Your task to perform on an android device: Open settings Image 0: 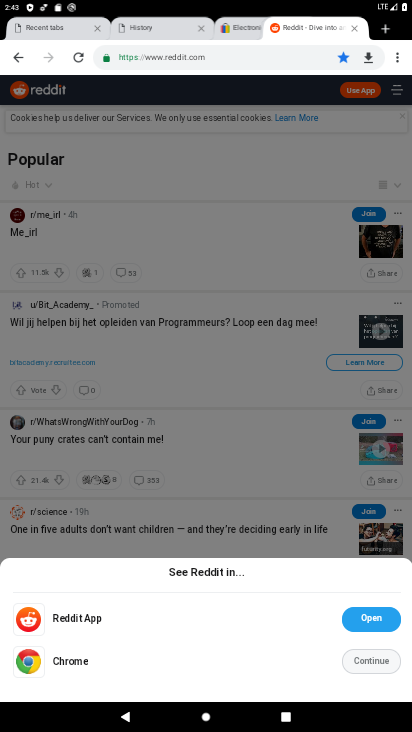
Step 0: press home button
Your task to perform on an android device: Open settings Image 1: 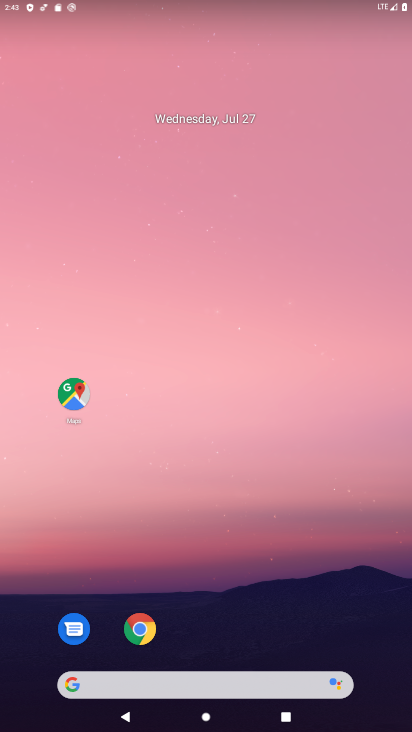
Step 1: drag from (199, 655) to (212, 198)
Your task to perform on an android device: Open settings Image 2: 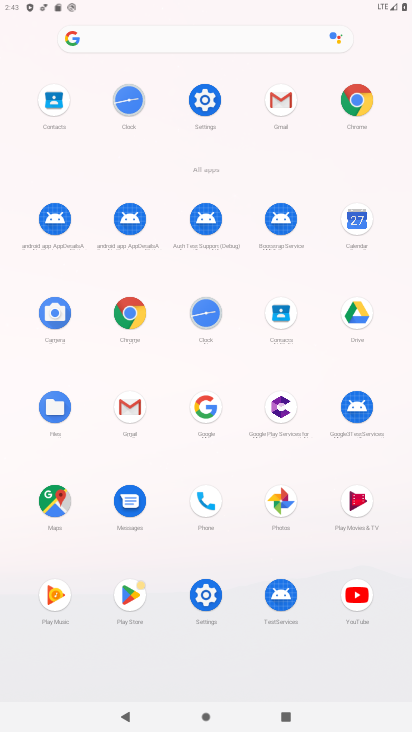
Step 2: click (208, 111)
Your task to perform on an android device: Open settings Image 3: 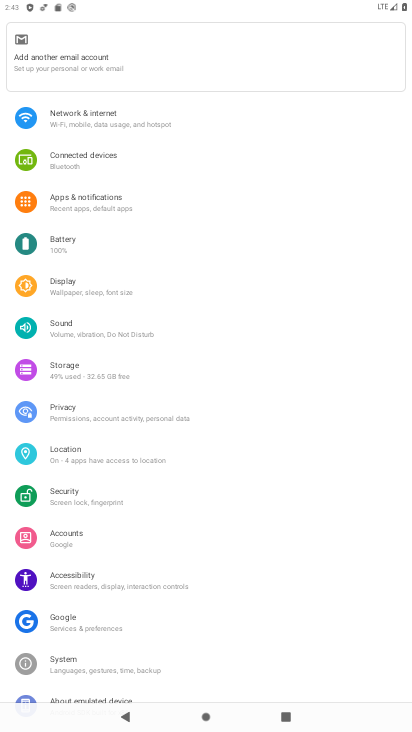
Step 3: task complete